Your task to perform on an android device: uninstall "Skype" Image 0: 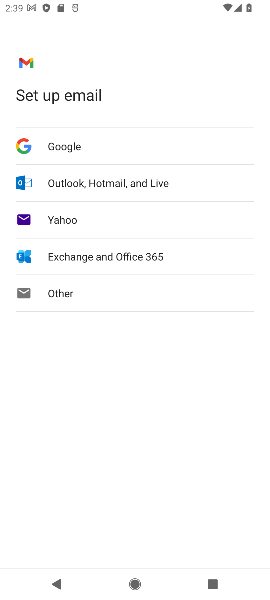
Step 0: press home button
Your task to perform on an android device: uninstall "Skype" Image 1: 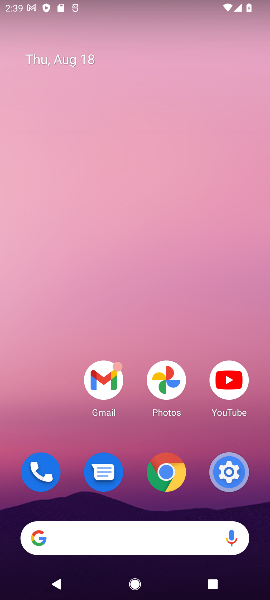
Step 1: drag from (146, 515) to (123, 334)
Your task to perform on an android device: uninstall "Skype" Image 2: 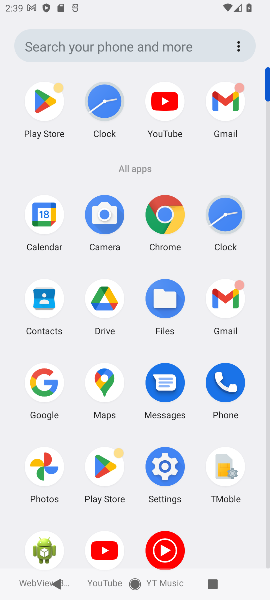
Step 2: click (98, 475)
Your task to perform on an android device: uninstall "Skype" Image 3: 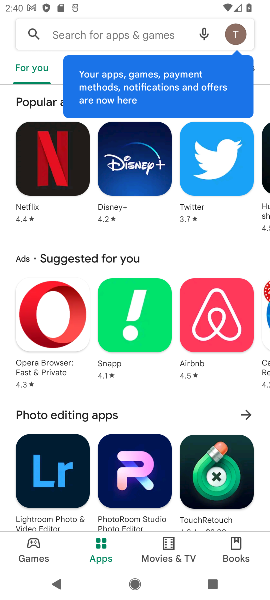
Step 3: click (125, 31)
Your task to perform on an android device: uninstall "Skype" Image 4: 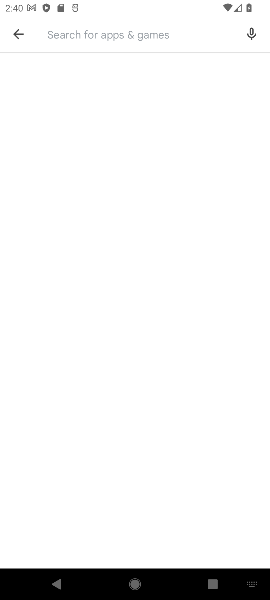
Step 4: type "Skype"
Your task to perform on an android device: uninstall "Skype" Image 5: 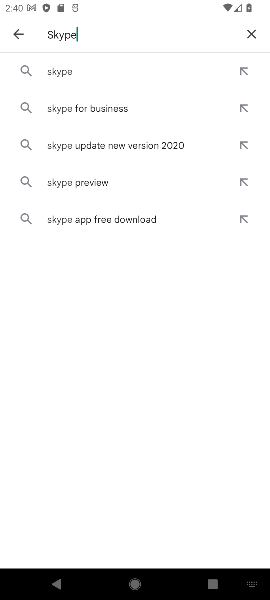
Step 5: click (58, 67)
Your task to perform on an android device: uninstall "Skype" Image 6: 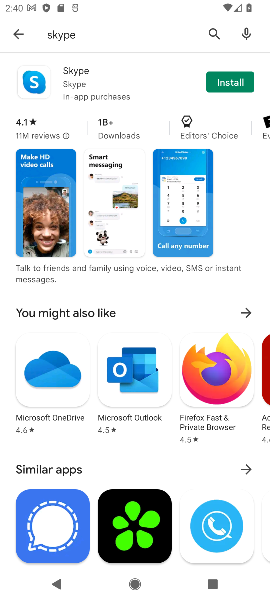
Step 6: task complete